Your task to perform on an android device: Go to Android settings Image 0: 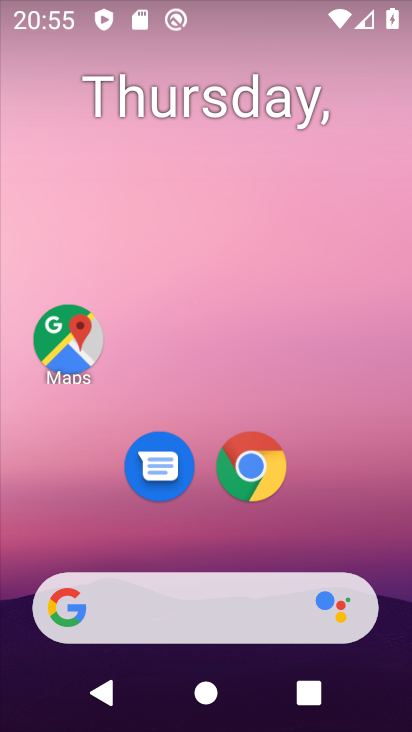
Step 0: drag from (200, 558) to (409, 0)
Your task to perform on an android device: Go to Android settings Image 1: 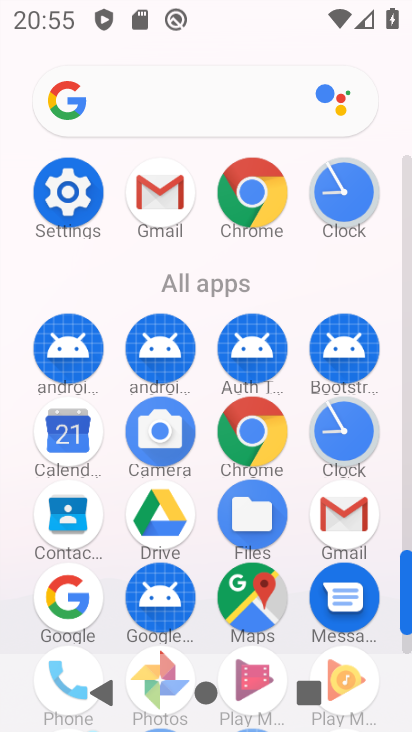
Step 1: click (57, 199)
Your task to perform on an android device: Go to Android settings Image 2: 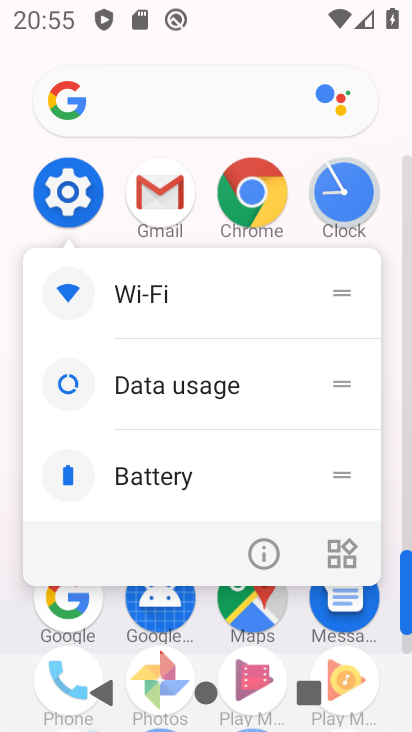
Step 2: click (68, 191)
Your task to perform on an android device: Go to Android settings Image 3: 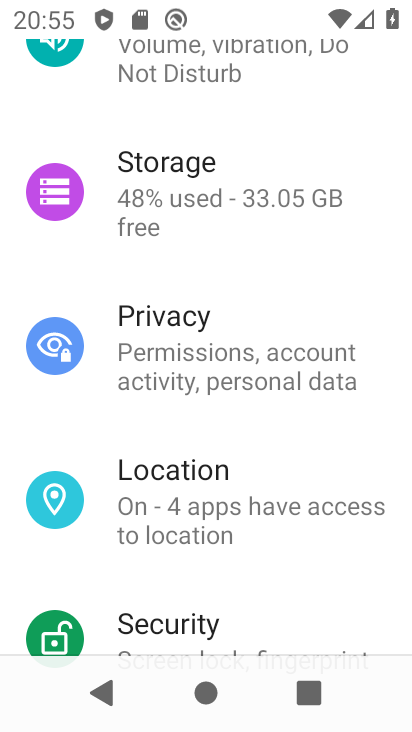
Step 3: task complete